Your task to perform on an android device: Open the map Image 0: 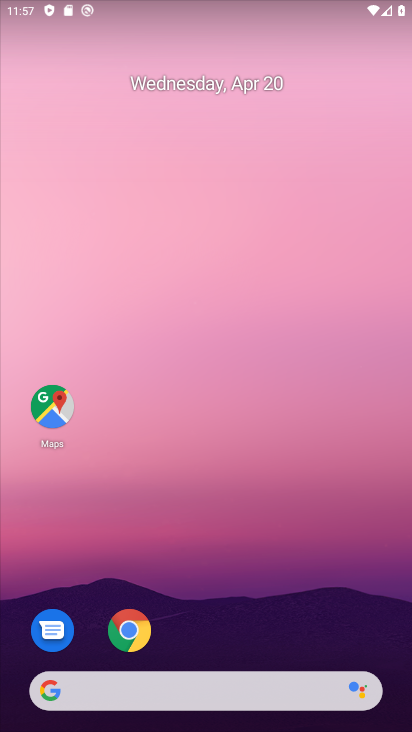
Step 0: click (60, 404)
Your task to perform on an android device: Open the map Image 1: 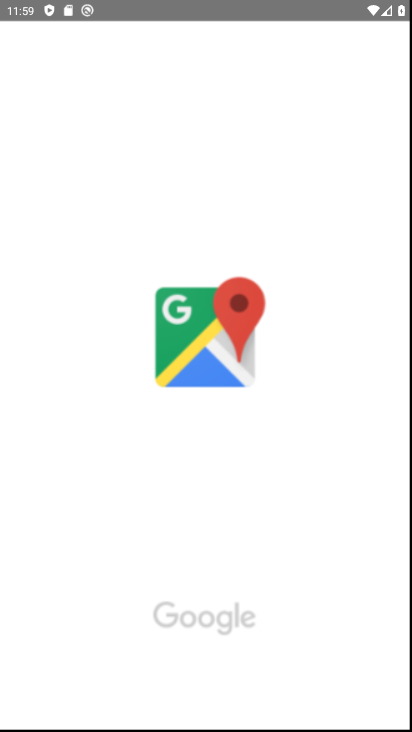
Step 1: task complete